Your task to perform on an android device: find which apps use the phone's location Image 0: 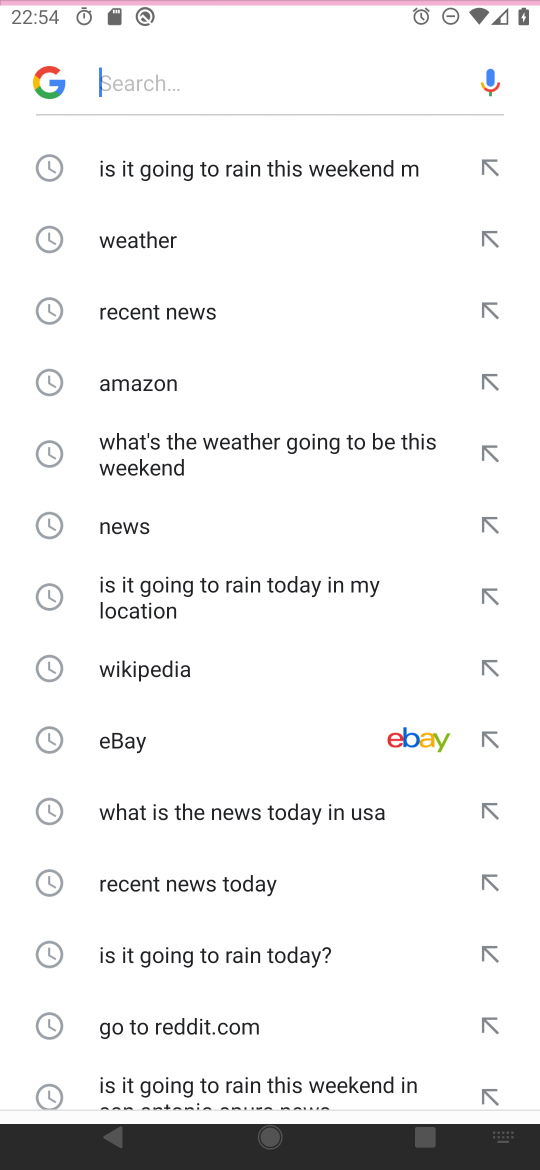
Step 0: click (413, 154)
Your task to perform on an android device: find which apps use the phone's location Image 1: 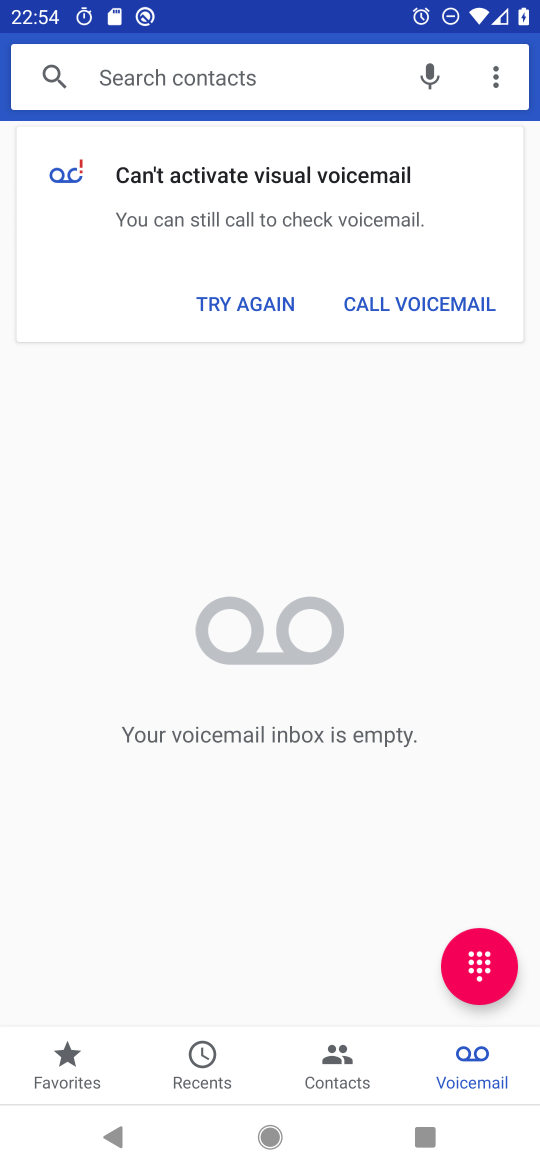
Step 1: press home button
Your task to perform on an android device: find which apps use the phone's location Image 2: 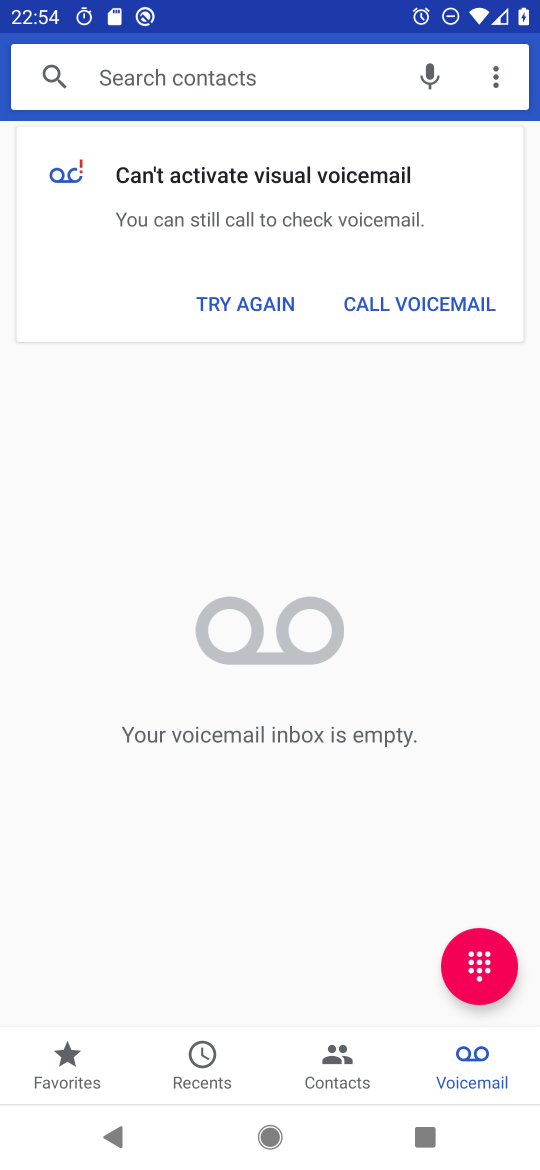
Step 2: drag from (252, 974) to (397, 78)
Your task to perform on an android device: find which apps use the phone's location Image 3: 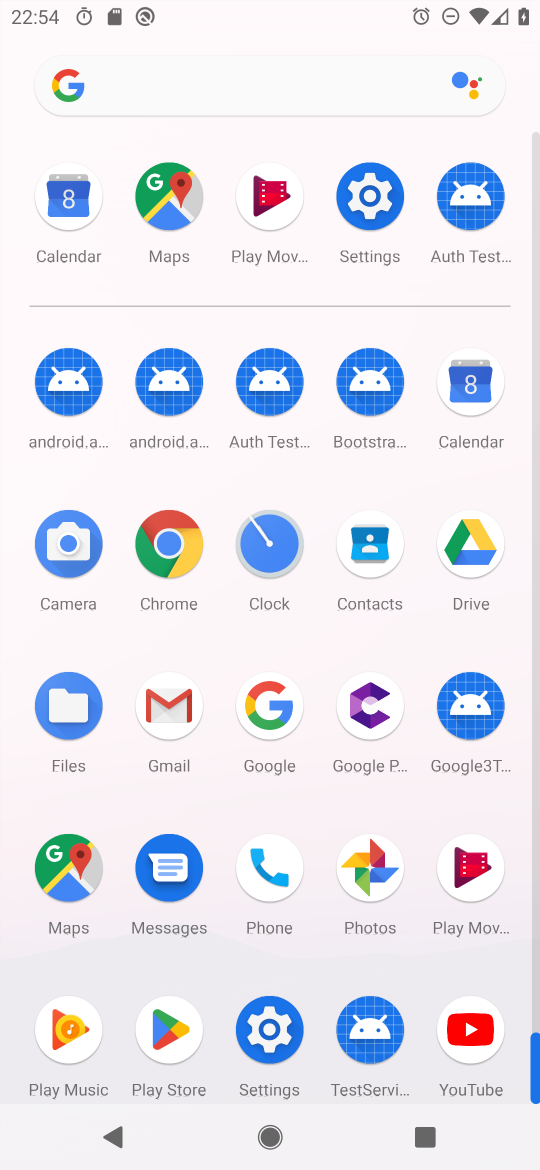
Step 3: click (373, 198)
Your task to perform on an android device: find which apps use the phone's location Image 4: 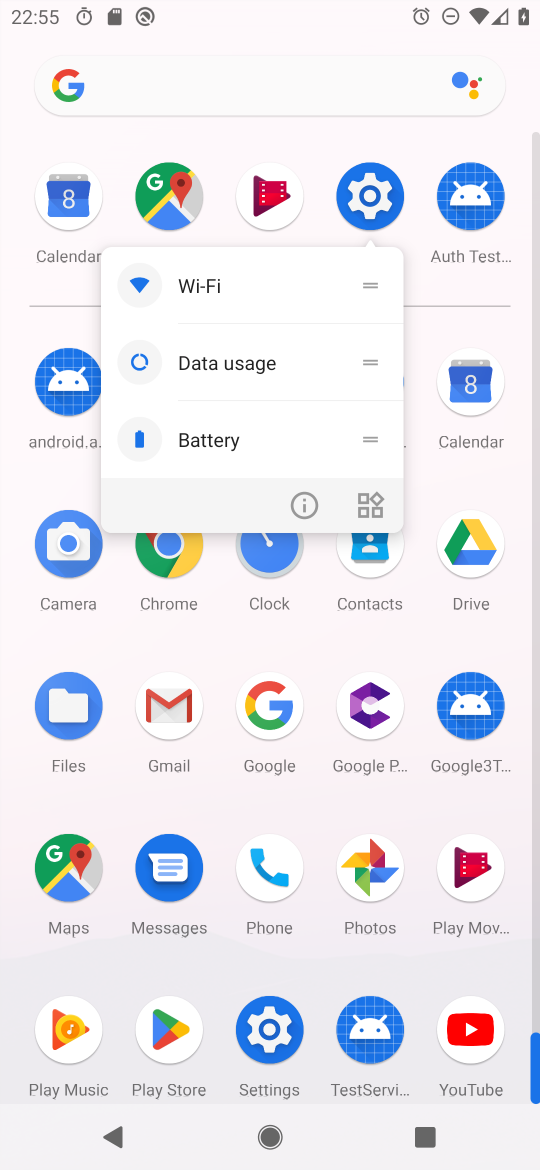
Step 4: click (312, 512)
Your task to perform on an android device: find which apps use the phone's location Image 5: 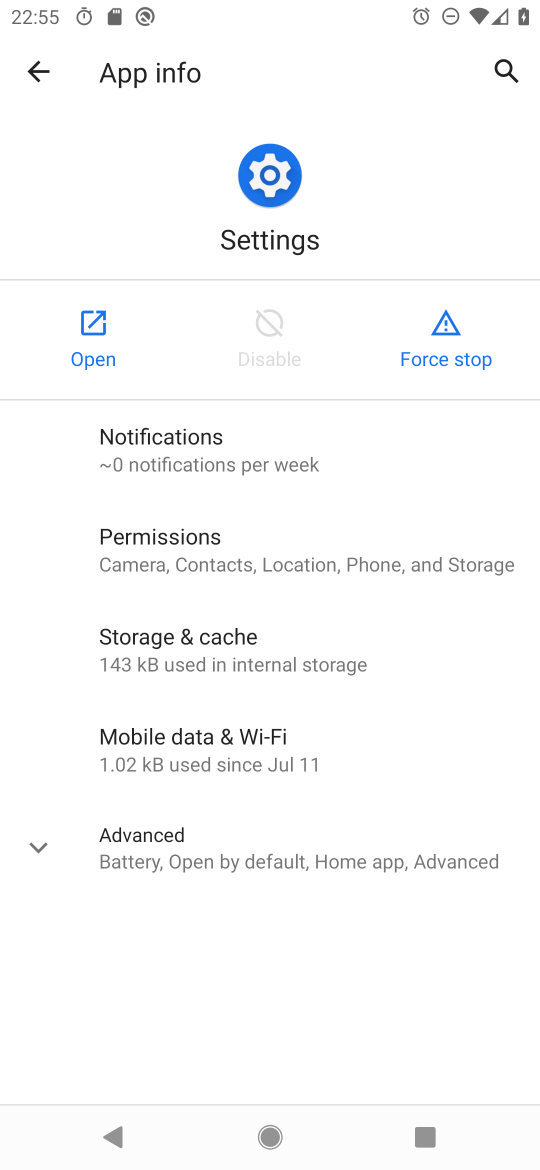
Step 5: click (99, 317)
Your task to perform on an android device: find which apps use the phone's location Image 6: 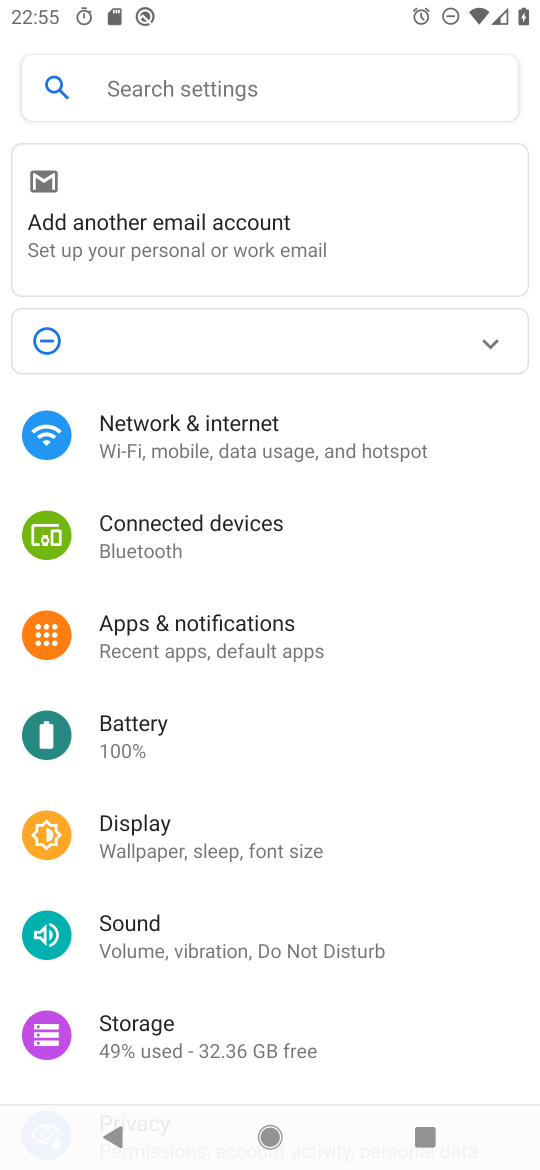
Step 6: drag from (203, 997) to (354, 471)
Your task to perform on an android device: find which apps use the phone's location Image 7: 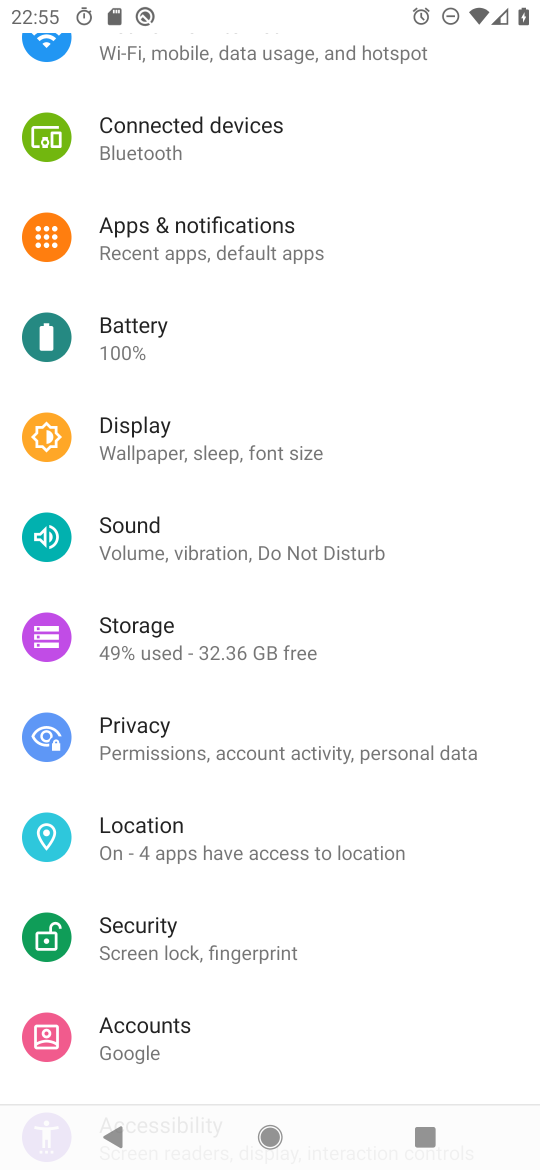
Step 7: click (200, 256)
Your task to perform on an android device: find which apps use the phone's location Image 8: 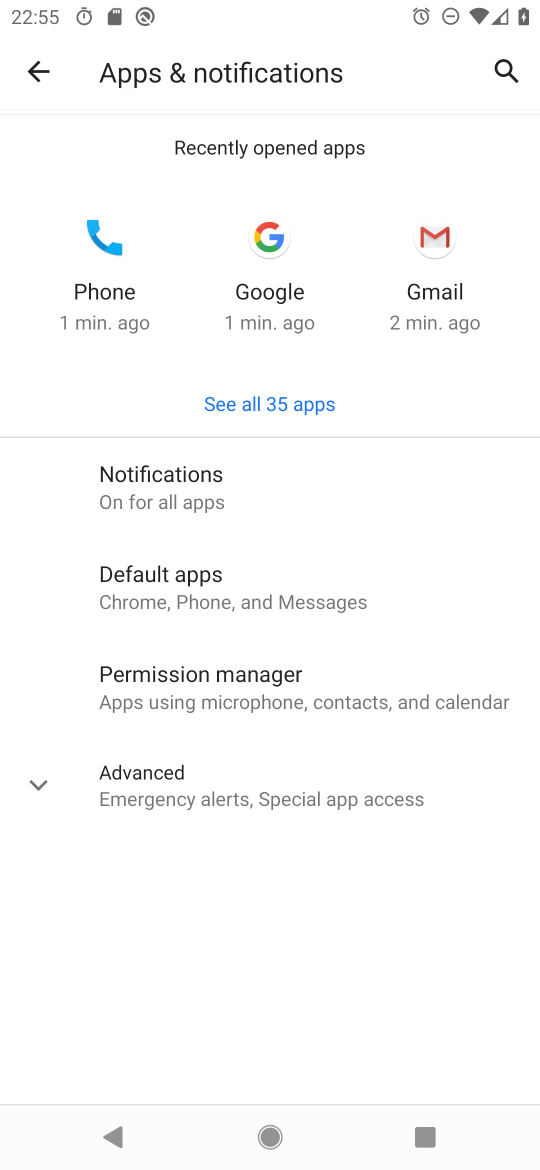
Step 8: click (116, 617)
Your task to perform on an android device: find which apps use the phone's location Image 9: 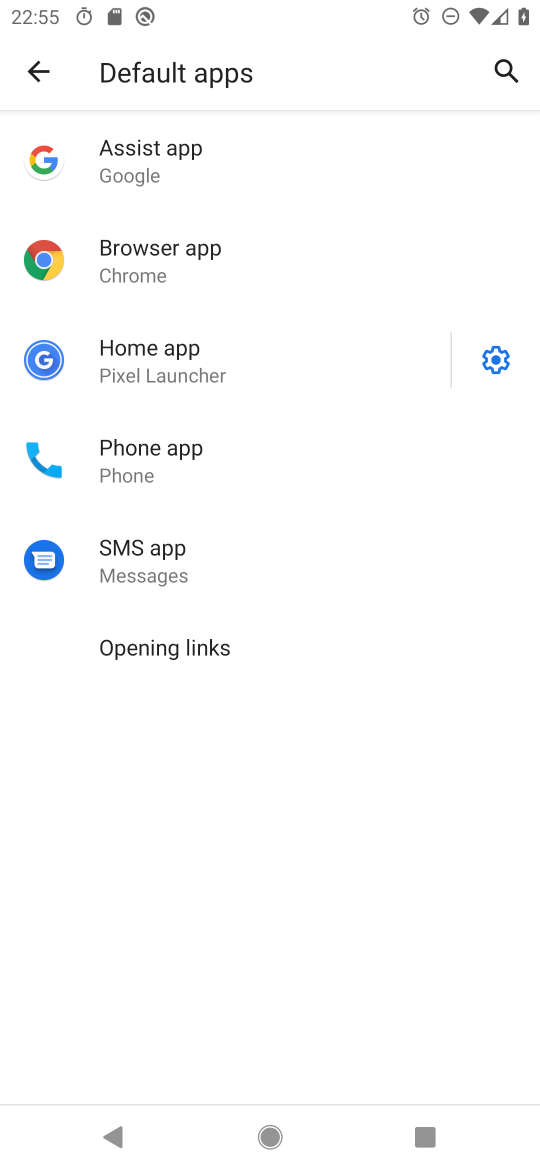
Step 9: click (17, 58)
Your task to perform on an android device: find which apps use the phone's location Image 10: 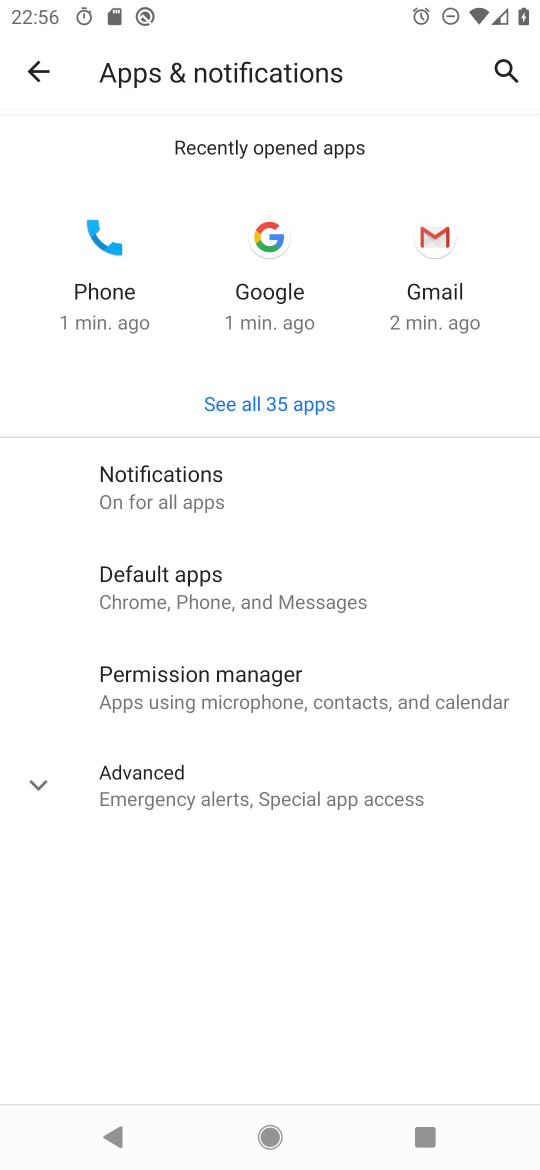
Step 10: click (165, 602)
Your task to perform on an android device: find which apps use the phone's location Image 11: 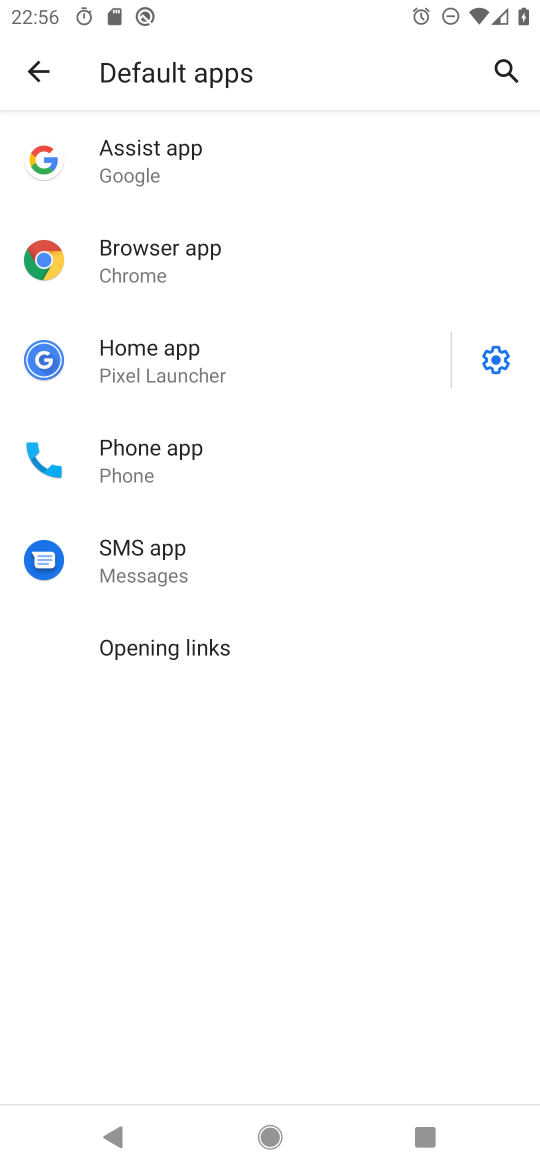
Step 11: task complete